Your task to perform on an android device: Go to display settings Image 0: 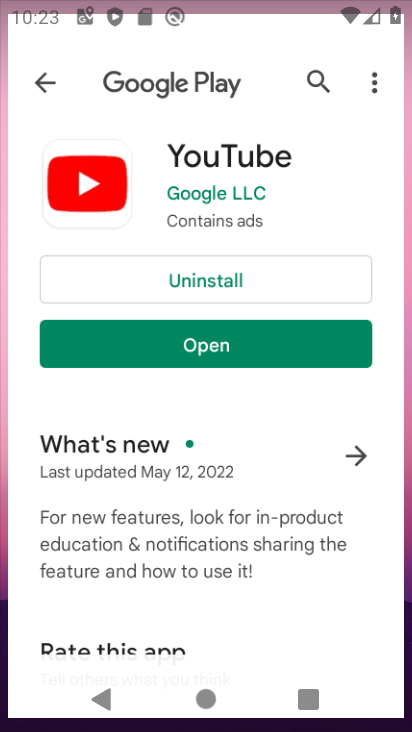
Step 0: press home button
Your task to perform on an android device: Go to display settings Image 1: 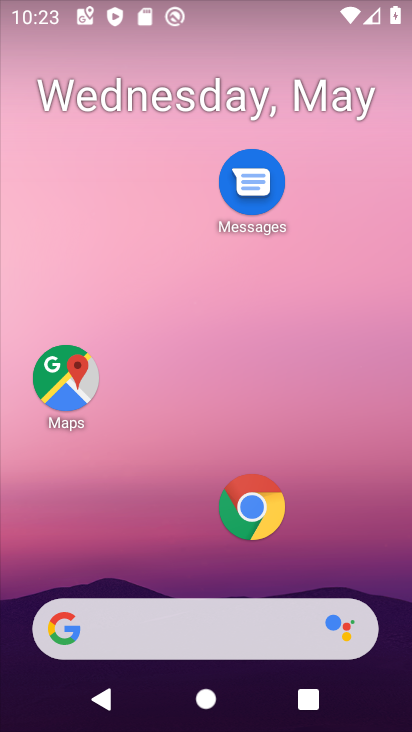
Step 1: drag from (203, 578) to (210, 106)
Your task to perform on an android device: Go to display settings Image 2: 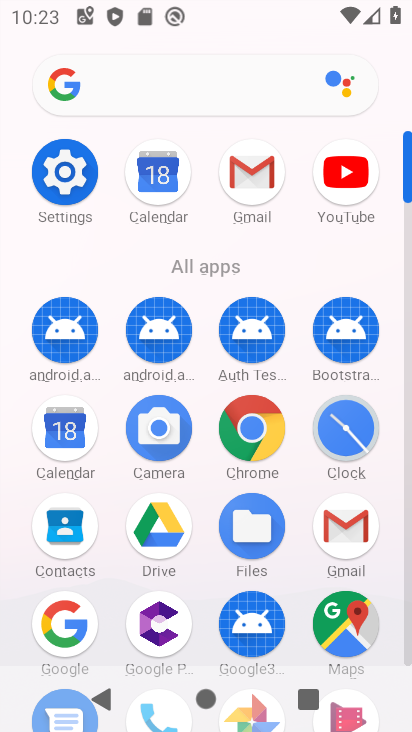
Step 2: click (63, 161)
Your task to perform on an android device: Go to display settings Image 3: 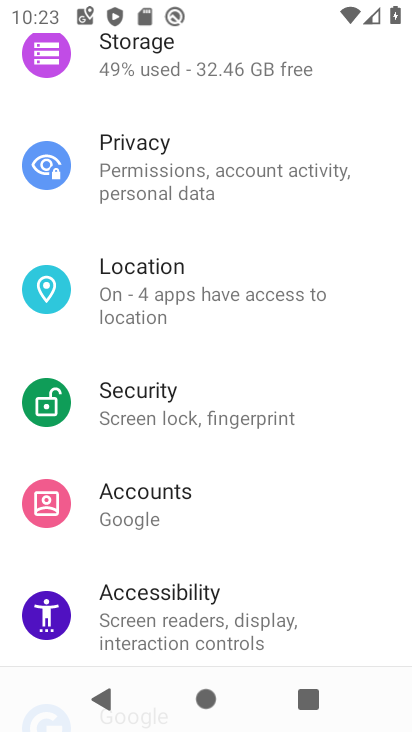
Step 3: drag from (235, 104) to (266, 558)
Your task to perform on an android device: Go to display settings Image 4: 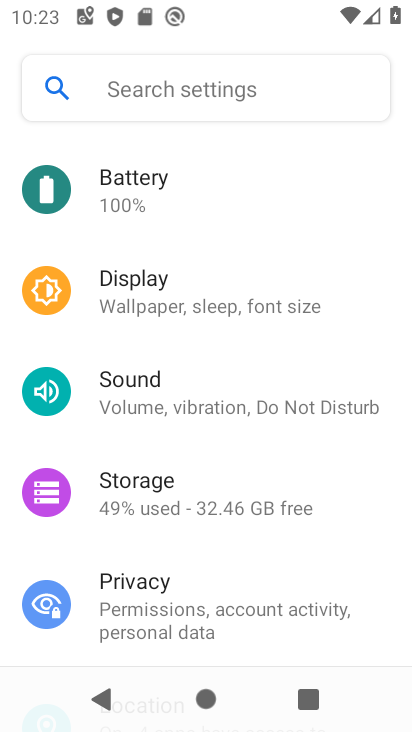
Step 4: click (185, 273)
Your task to perform on an android device: Go to display settings Image 5: 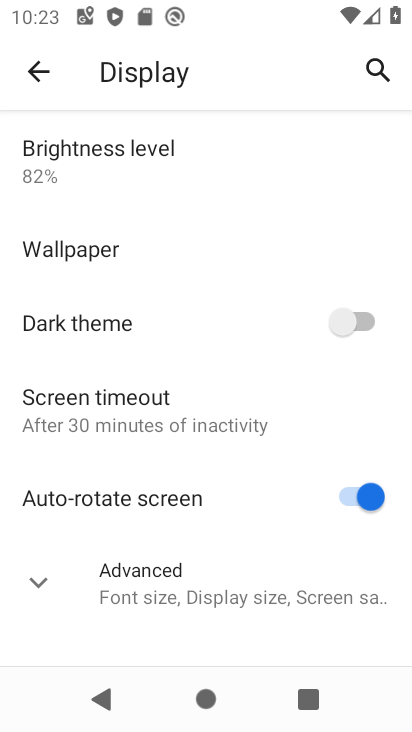
Step 5: click (49, 572)
Your task to perform on an android device: Go to display settings Image 6: 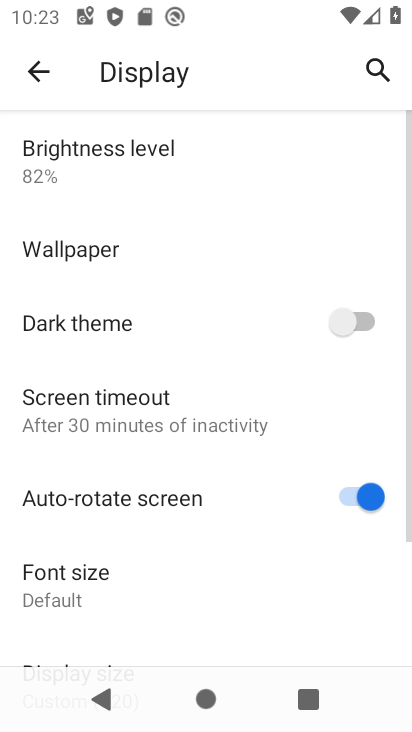
Step 6: drag from (126, 596) to (218, 191)
Your task to perform on an android device: Go to display settings Image 7: 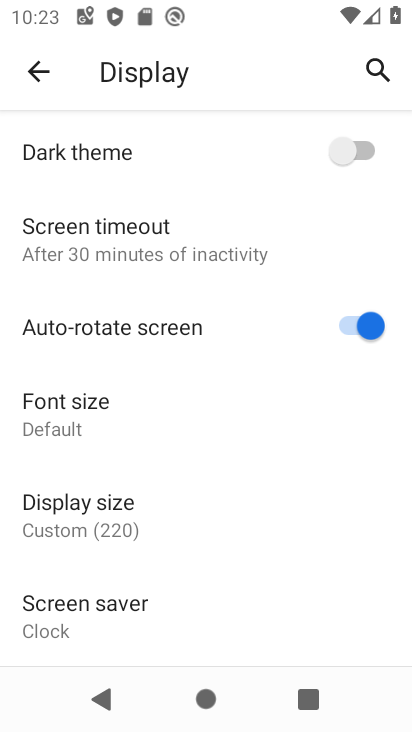
Step 7: click (147, 517)
Your task to perform on an android device: Go to display settings Image 8: 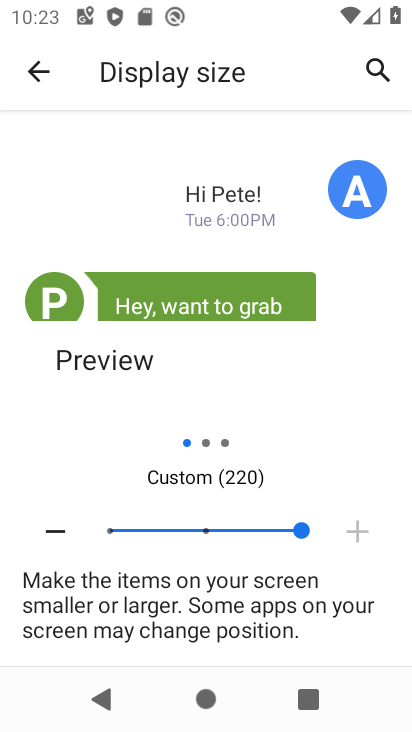
Step 8: task complete